Your task to perform on an android device: change the clock style Image 0: 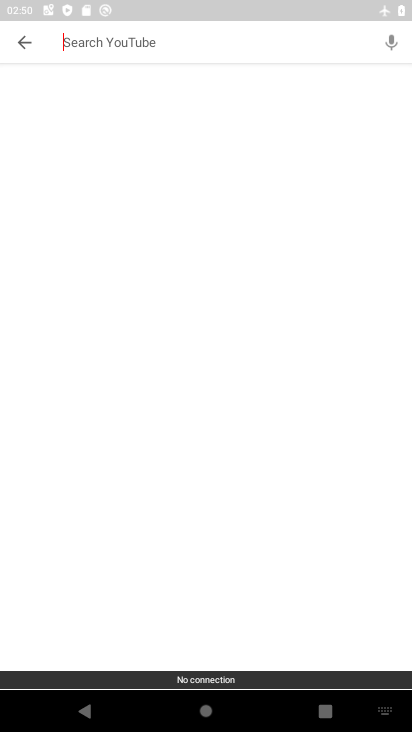
Step 0: press home button
Your task to perform on an android device: change the clock style Image 1: 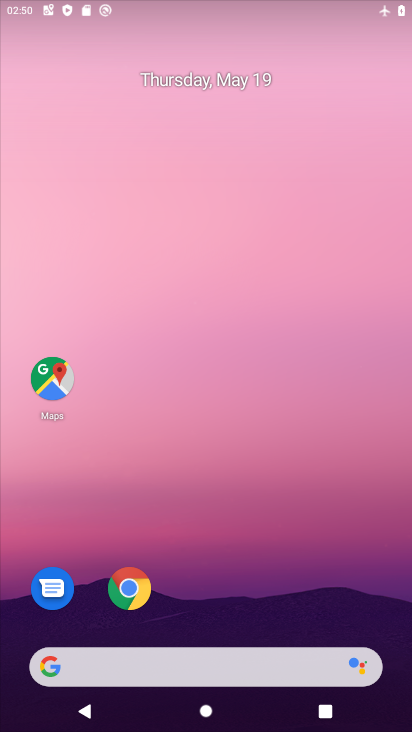
Step 1: drag from (208, 581) to (300, 63)
Your task to perform on an android device: change the clock style Image 2: 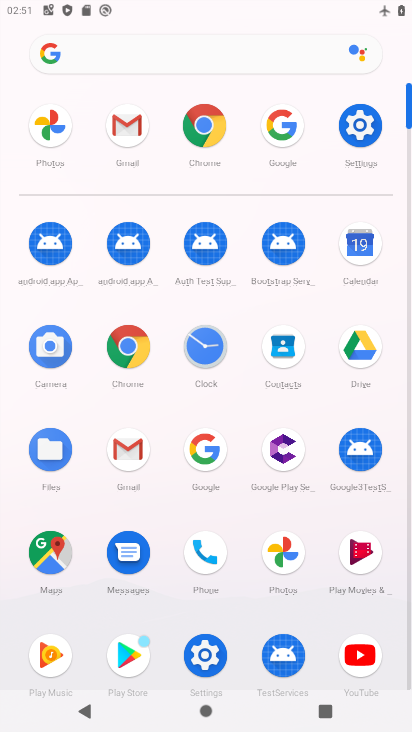
Step 2: click (213, 345)
Your task to perform on an android device: change the clock style Image 3: 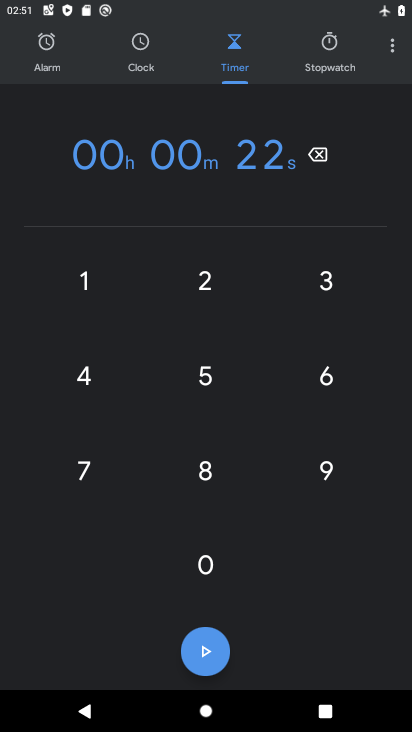
Step 3: click (389, 37)
Your task to perform on an android device: change the clock style Image 4: 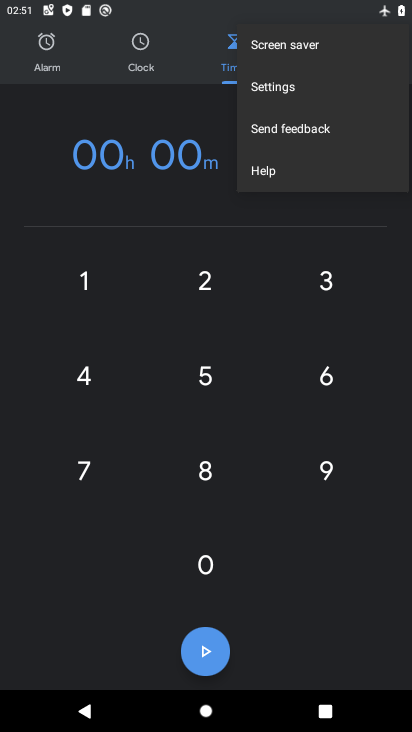
Step 4: click (299, 85)
Your task to perform on an android device: change the clock style Image 5: 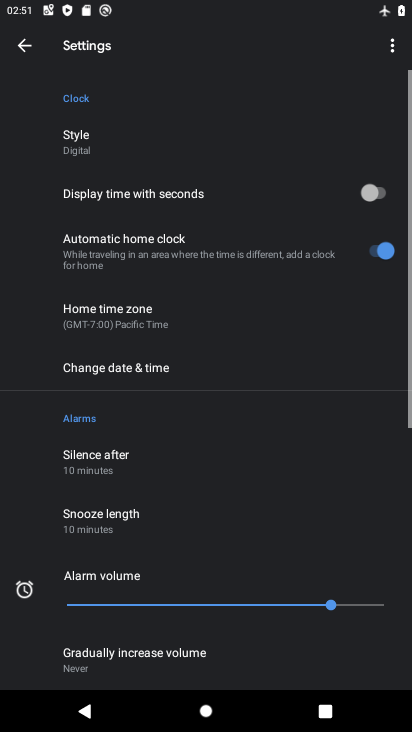
Step 5: click (152, 138)
Your task to perform on an android device: change the clock style Image 6: 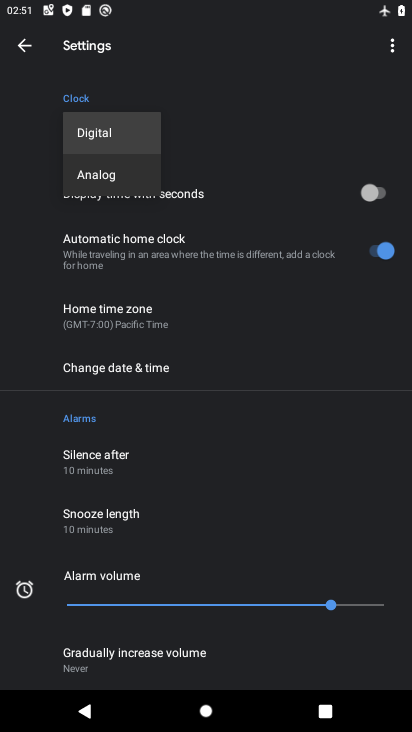
Step 6: click (95, 181)
Your task to perform on an android device: change the clock style Image 7: 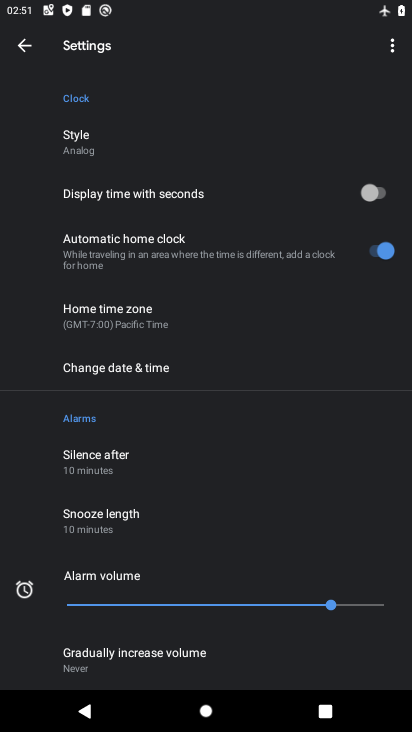
Step 7: task complete